Your task to perform on an android device: Go to battery settings Image 0: 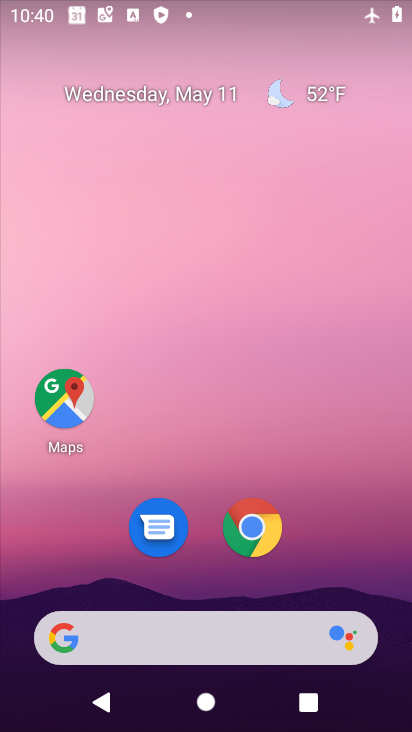
Step 0: drag from (339, 393) to (352, 16)
Your task to perform on an android device: Go to battery settings Image 1: 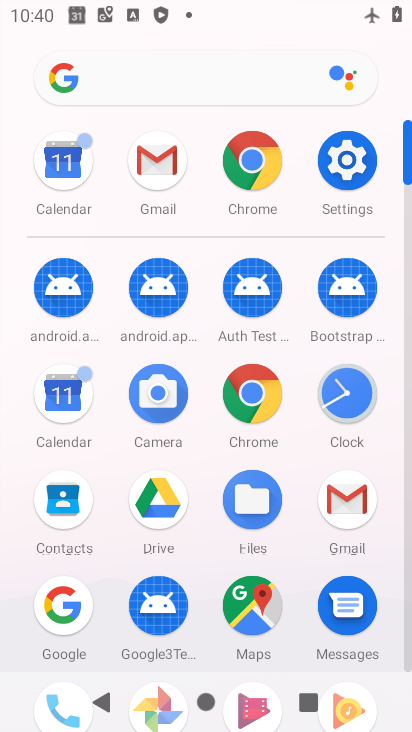
Step 1: click (342, 153)
Your task to perform on an android device: Go to battery settings Image 2: 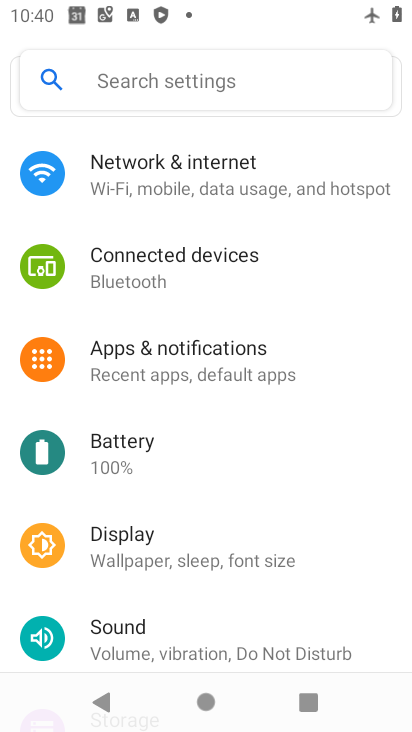
Step 2: click (141, 439)
Your task to perform on an android device: Go to battery settings Image 3: 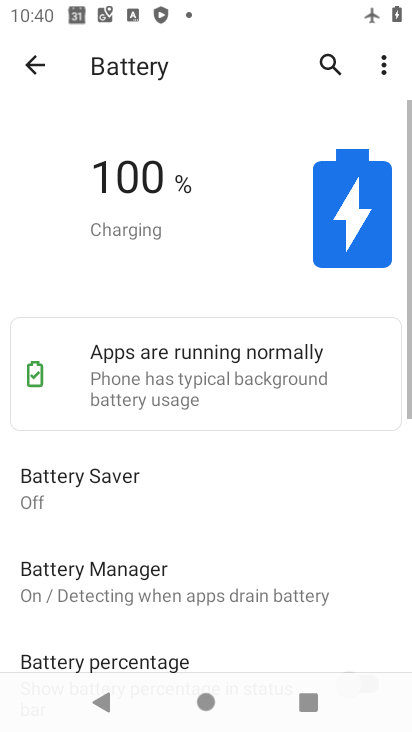
Step 3: task complete